Your task to perform on an android device: What's on my calendar tomorrow? Image 0: 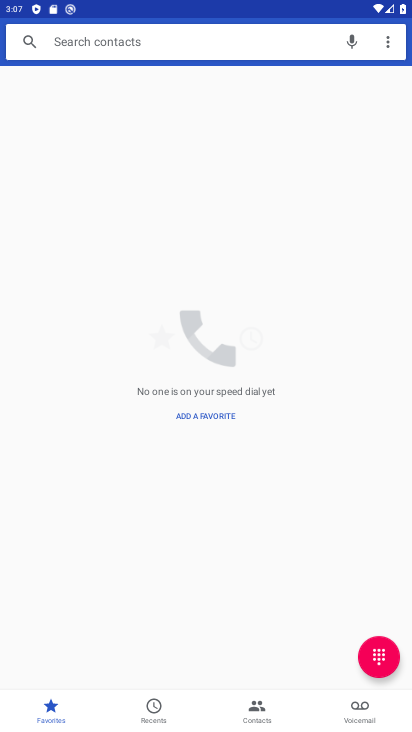
Step 0: press home button
Your task to perform on an android device: What's on my calendar tomorrow? Image 1: 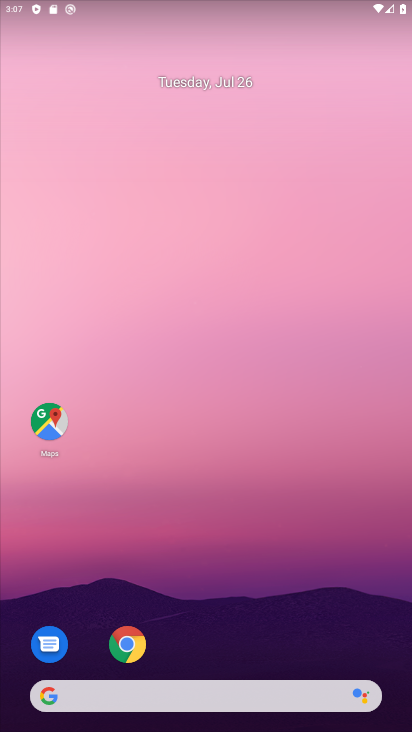
Step 1: drag from (278, 668) to (275, 270)
Your task to perform on an android device: What's on my calendar tomorrow? Image 2: 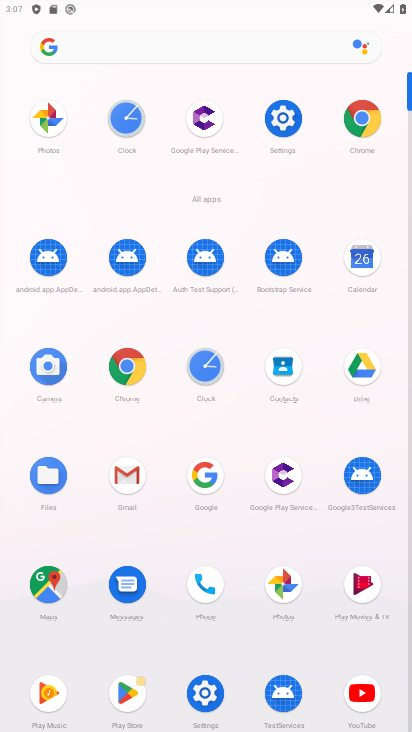
Step 2: click (366, 267)
Your task to perform on an android device: What's on my calendar tomorrow? Image 3: 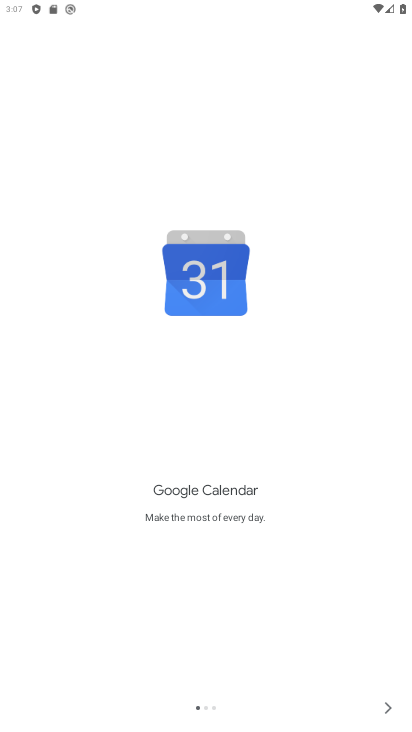
Step 3: click (394, 701)
Your task to perform on an android device: What's on my calendar tomorrow? Image 4: 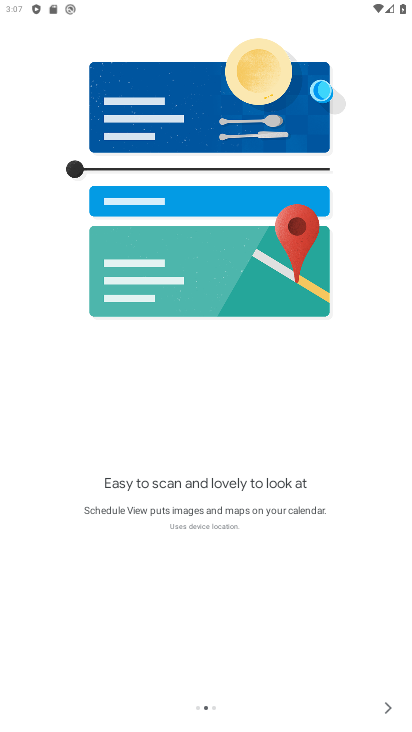
Step 4: click (385, 703)
Your task to perform on an android device: What's on my calendar tomorrow? Image 5: 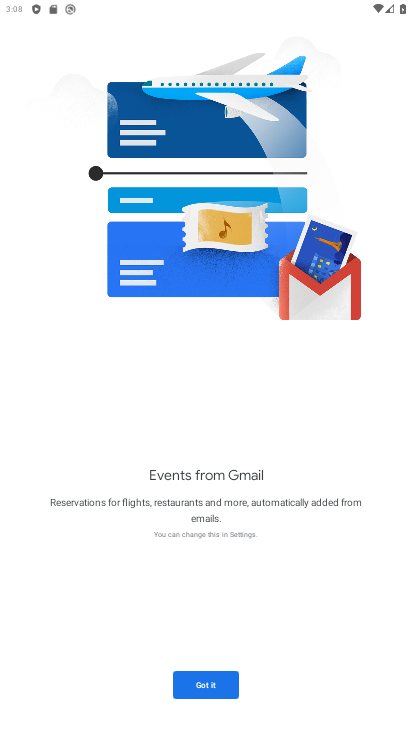
Step 5: click (187, 686)
Your task to perform on an android device: What's on my calendar tomorrow? Image 6: 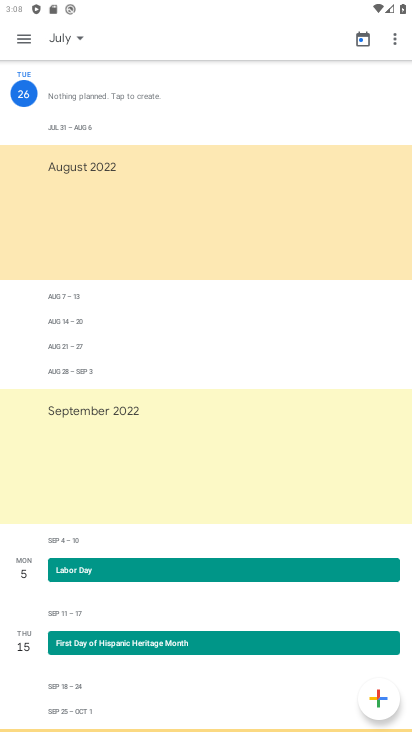
Step 6: click (18, 23)
Your task to perform on an android device: What's on my calendar tomorrow? Image 7: 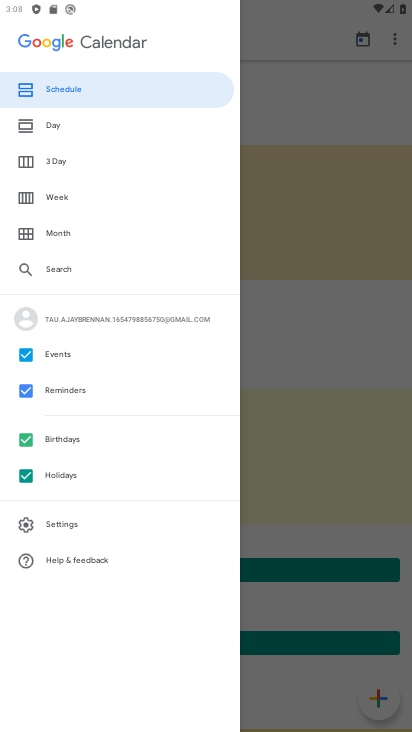
Step 7: click (69, 178)
Your task to perform on an android device: What's on my calendar tomorrow? Image 8: 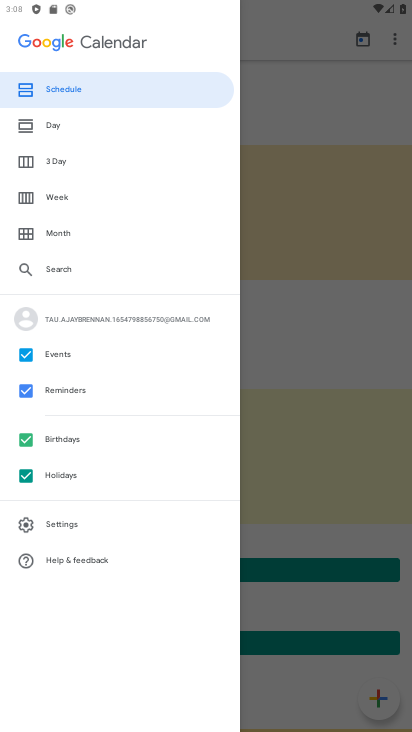
Step 8: click (67, 183)
Your task to perform on an android device: What's on my calendar tomorrow? Image 9: 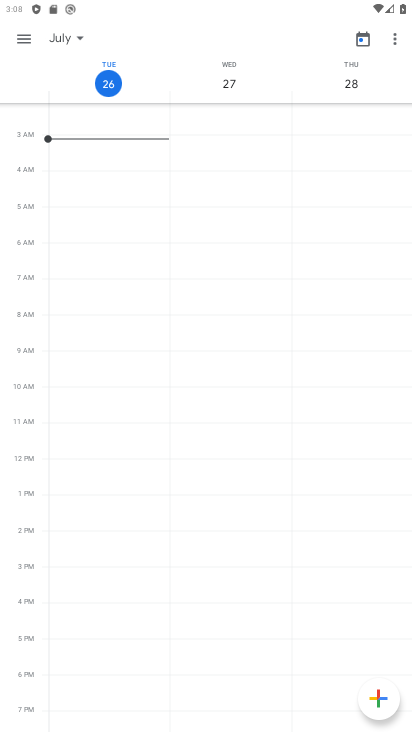
Step 9: click (221, 100)
Your task to perform on an android device: What's on my calendar tomorrow? Image 10: 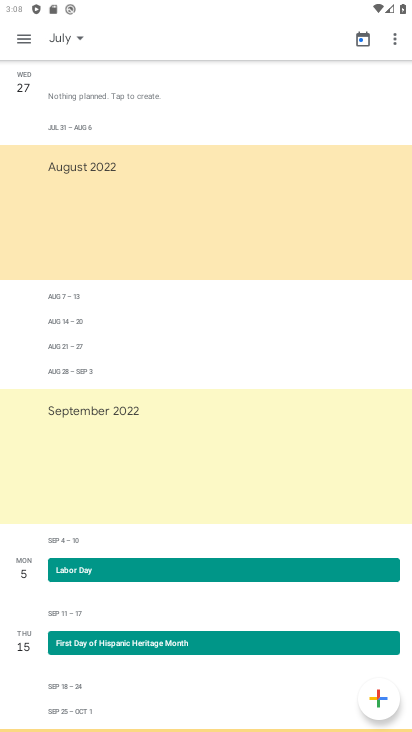
Step 10: task complete